Your task to perform on an android device: What's on Reddit Image 0: 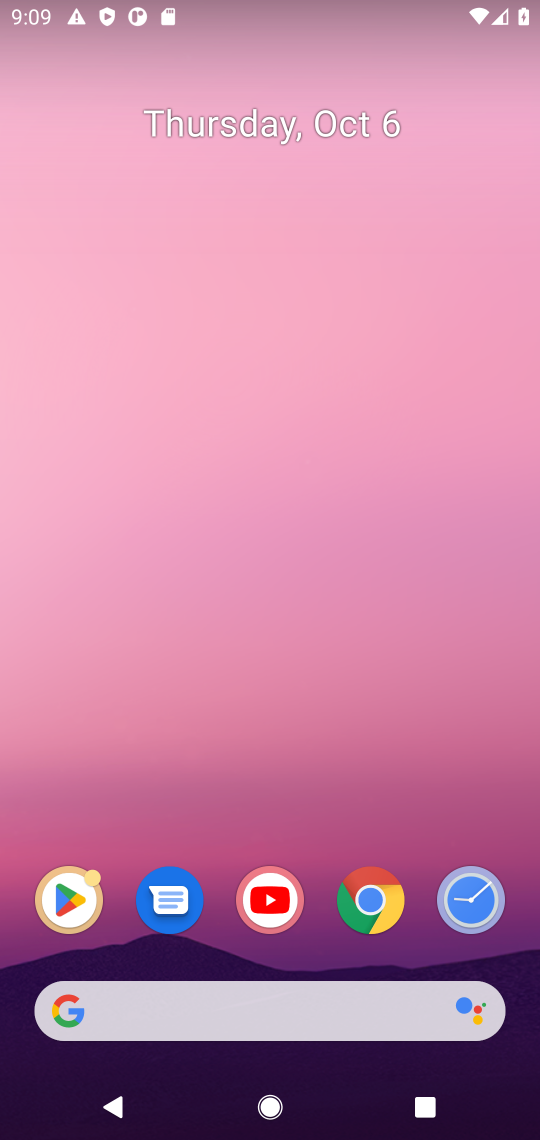
Step 0: drag from (369, 829) to (221, 1)
Your task to perform on an android device: What's on Reddit Image 1: 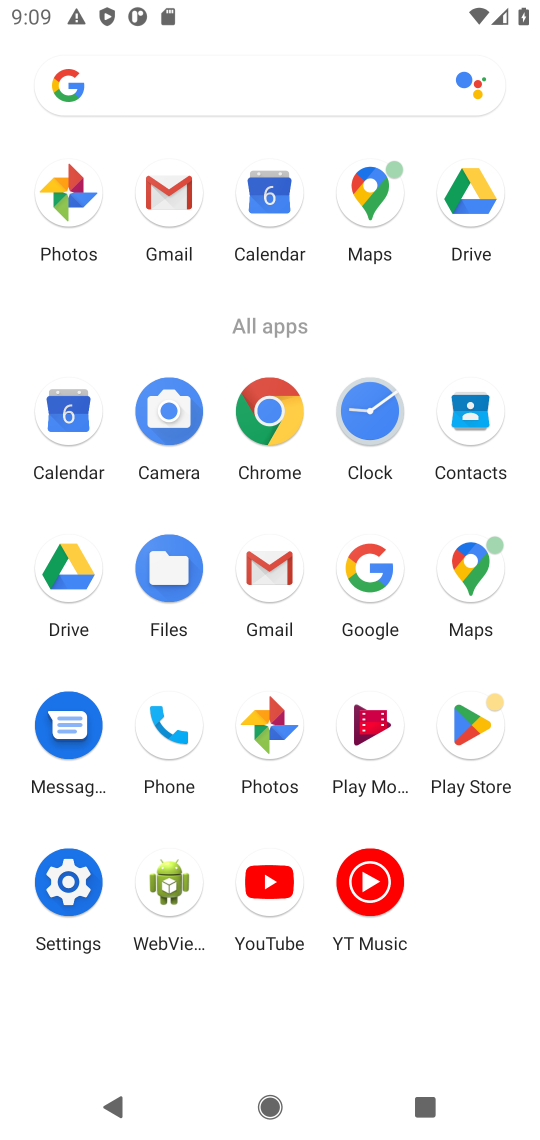
Step 1: click (475, 730)
Your task to perform on an android device: What's on Reddit Image 2: 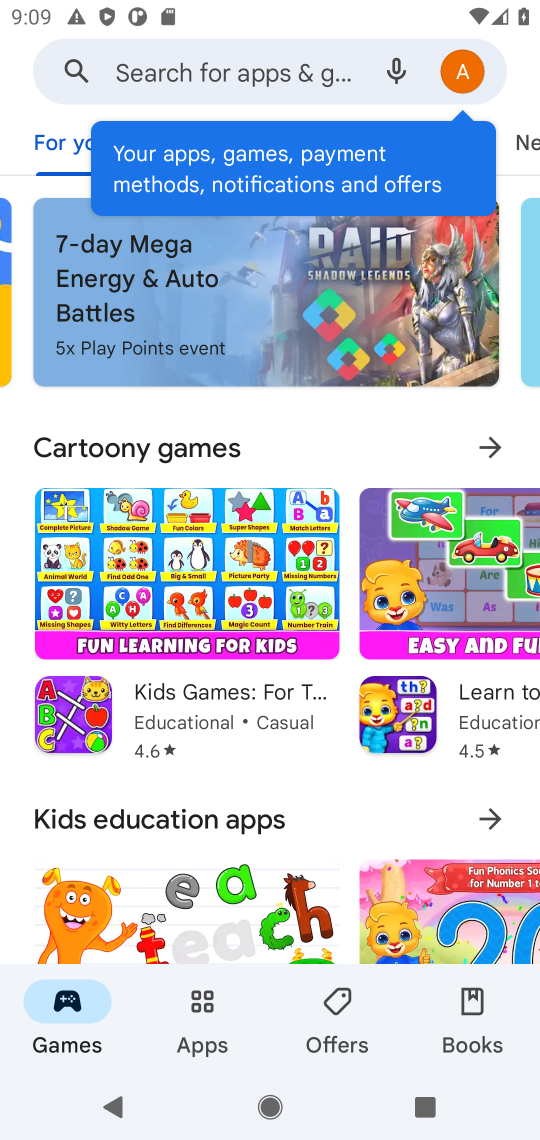
Step 2: click (293, 67)
Your task to perform on an android device: What's on Reddit Image 3: 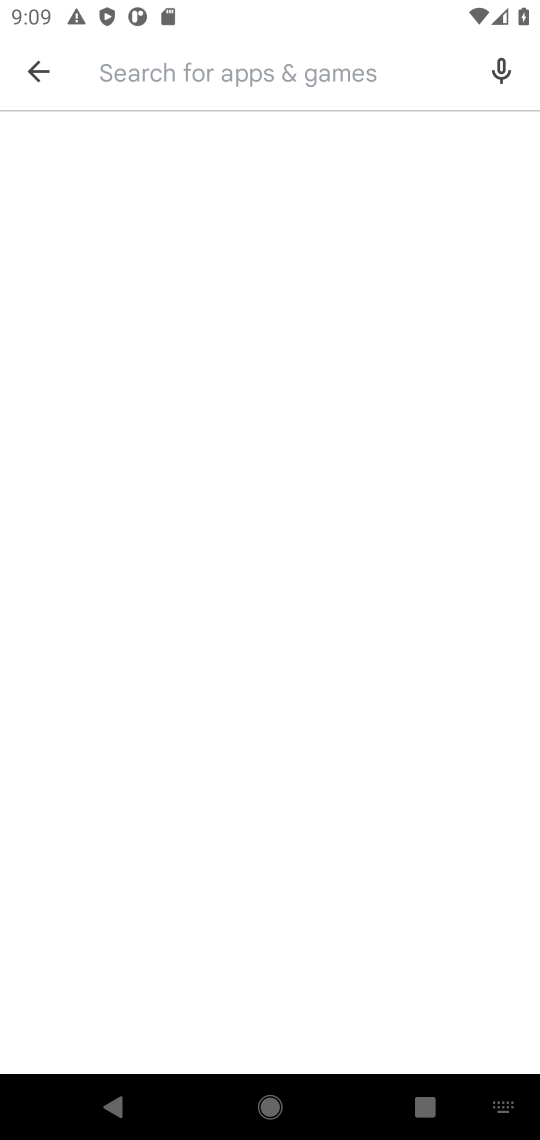
Step 3: type "reddit"
Your task to perform on an android device: What's on Reddit Image 4: 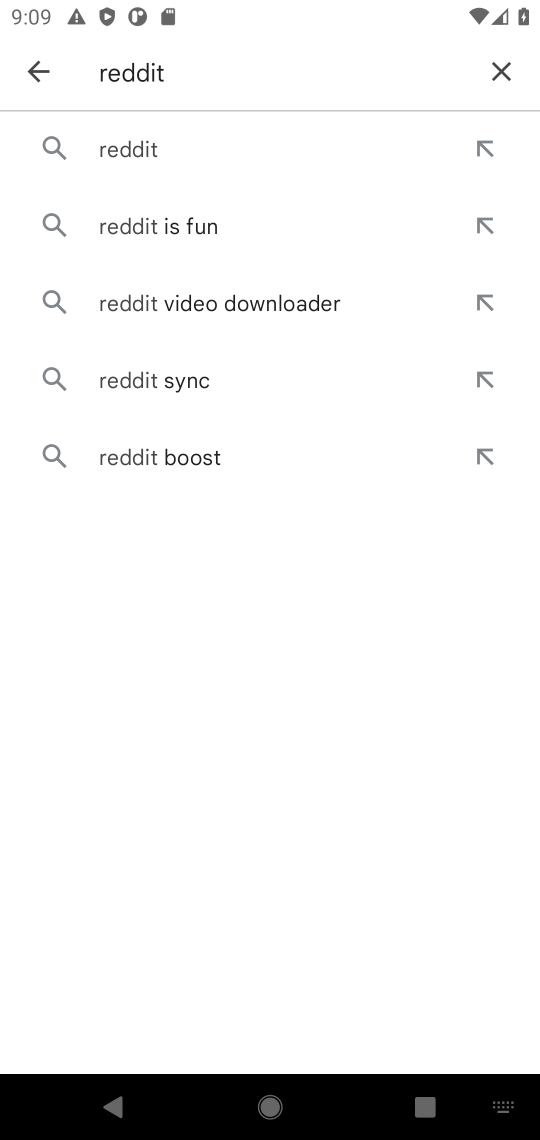
Step 4: click (216, 165)
Your task to perform on an android device: What's on Reddit Image 5: 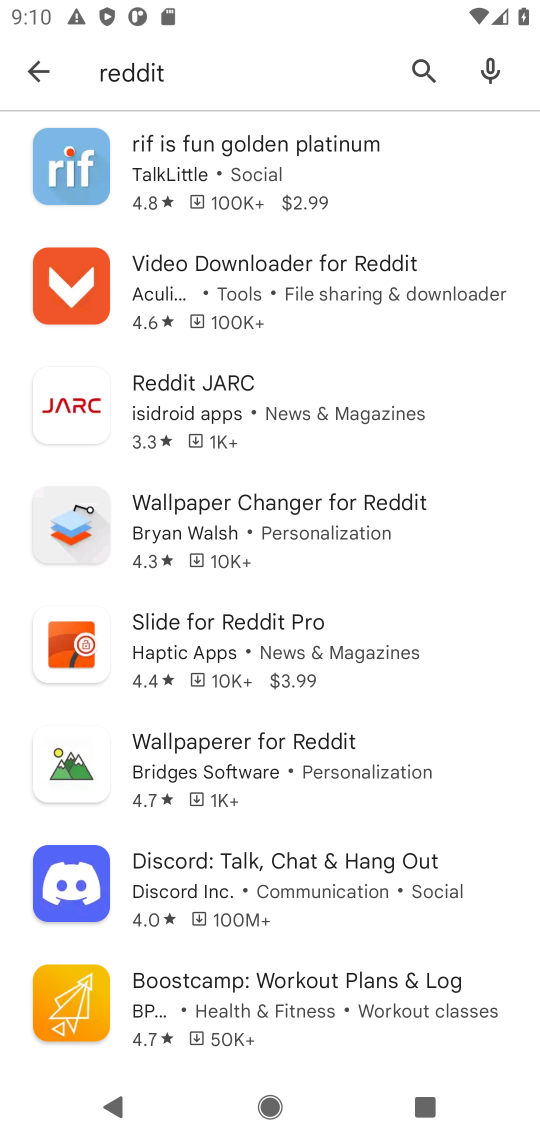
Step 5: task complete